Your task to perform on an android device: Open accessibility settings Image 0: 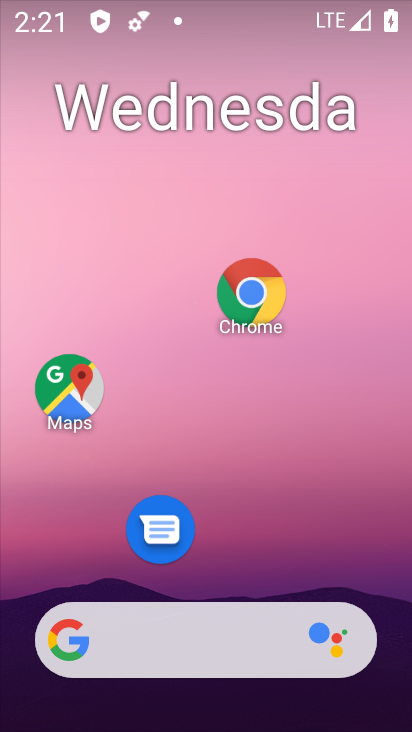
Step 0: drag from (260, 546) to (184, 179)
Your task to perform on an android device: Open accessibility settings Image 1: 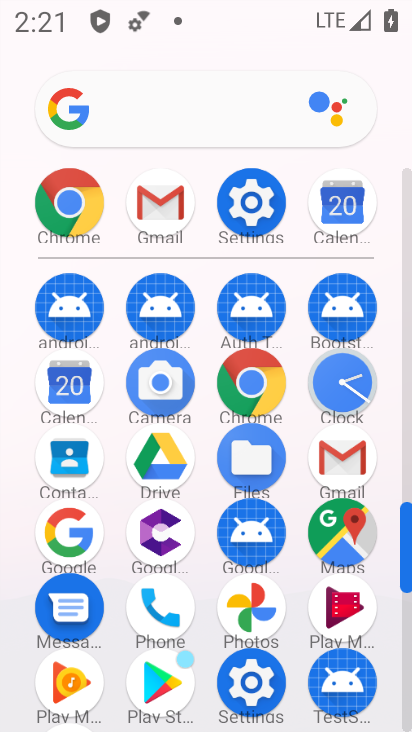
Step 1: click (260, 208)
Your task to perform on an android device: Open accessibility settings Image 2: 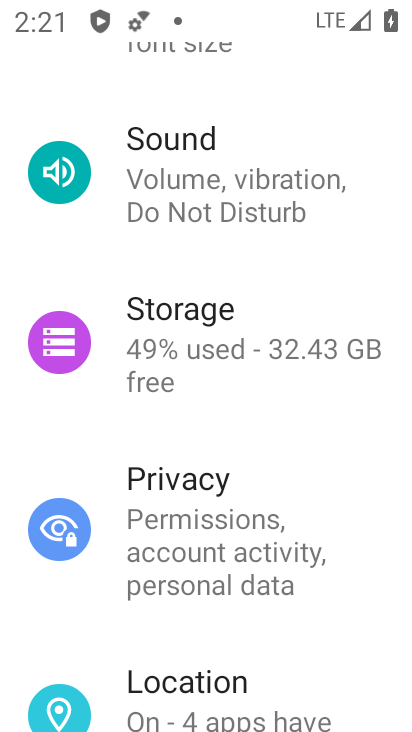
Step 2: drag from (247, 420) to (273, 110)
Your task to perform on an android device: Open accessibility settings Image 3: 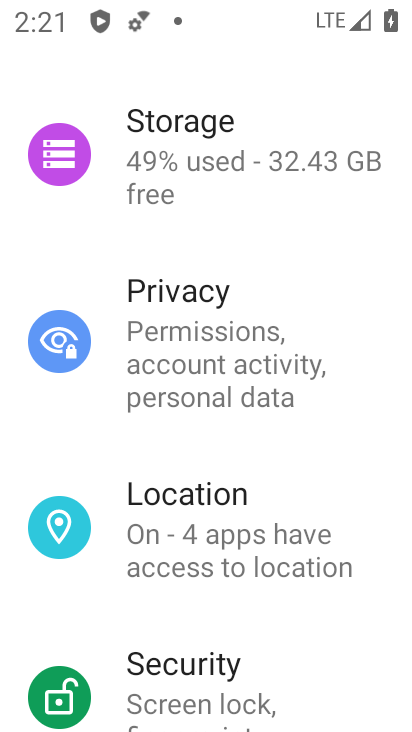
Step 3: drag from (205, 481) to (218, 281)
Your task to perform on an android device: Open accessibility settings Image 4: 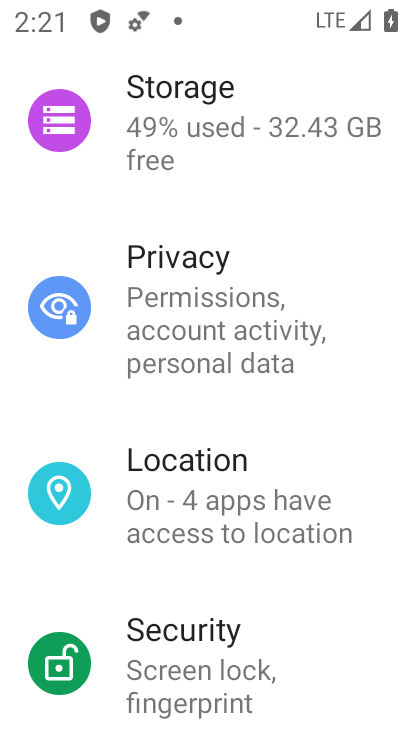
Step 4: drag from (215, 494) to (165, 10)
Your task to perform on an android device: Open accessibility settings Image 5: 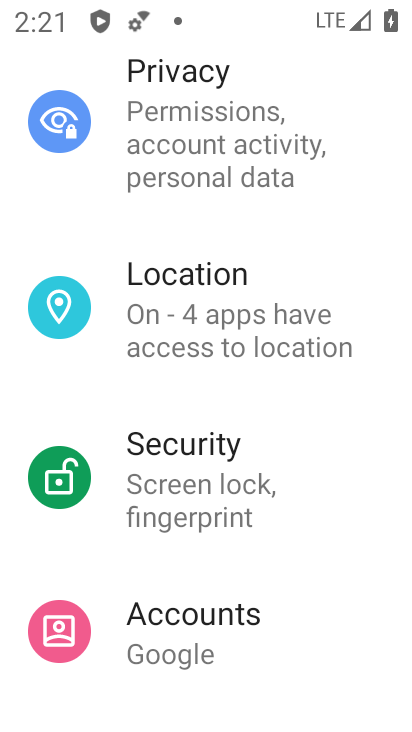
Step 5: drag from (329, 518) to (356, 153)
Your task to perform on an android device: Open accessibility settings Image 6: 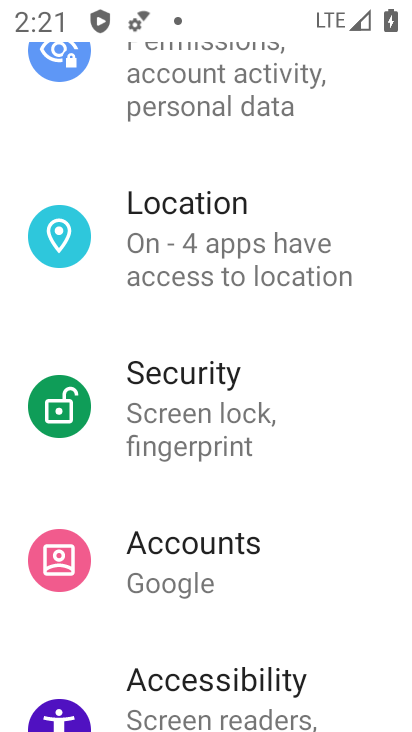
Step 6: drag from (333, 413) to (311, 2)
Your task to perform on an android device: Open accessibility settings Image 7: 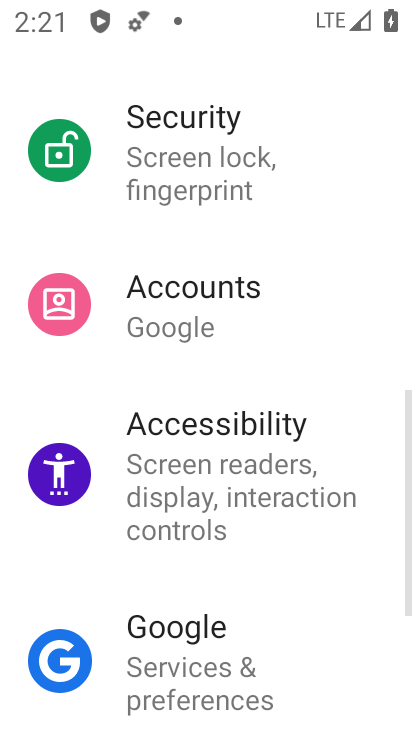
Step 7: click (271, 432)
Your task to perform on an android device: Open accessibility settings Image 8: 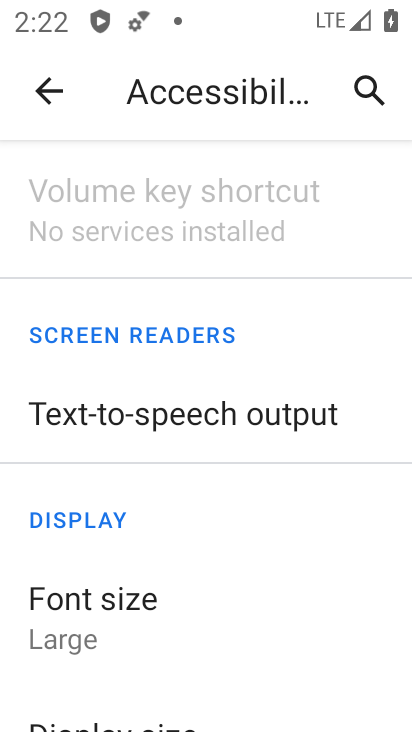
Step 8: task complete